Your task to perform on an android device: Open the map Image 0: 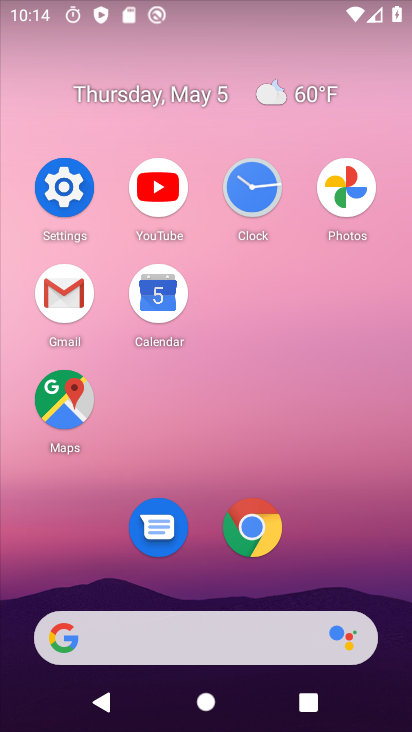
Step 0: click (67, 387)
Your task to perform on an android device: Open the map Image 1: 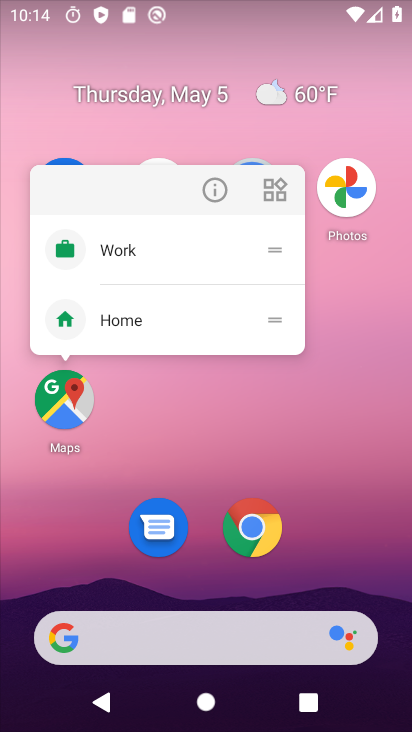
Step 1: click (74, 438)
Your task to perform on an android device: Open the map Image 2: 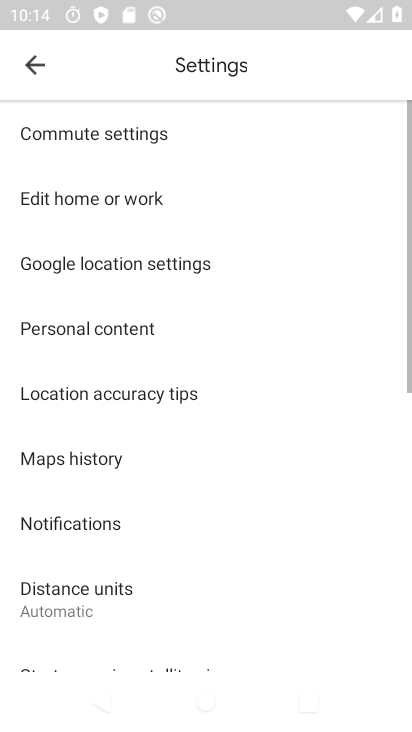
Step 2: task complete